Your task to perform on an android device: Go to calendar. Show me events next week Image 0: 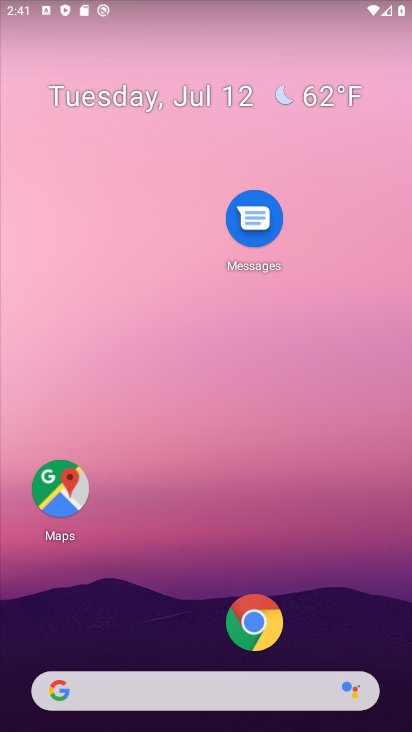
Step 0: click (404, 369)
Your task to perform on an android device: Go to calendar. Show me events next week Image 1: 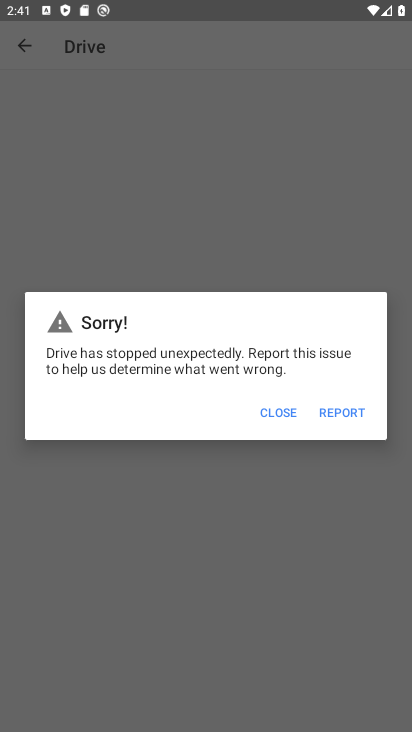
Step 1: press home button
Your task to perform on an android device: Go to calendar. Show me events next week Image 2: 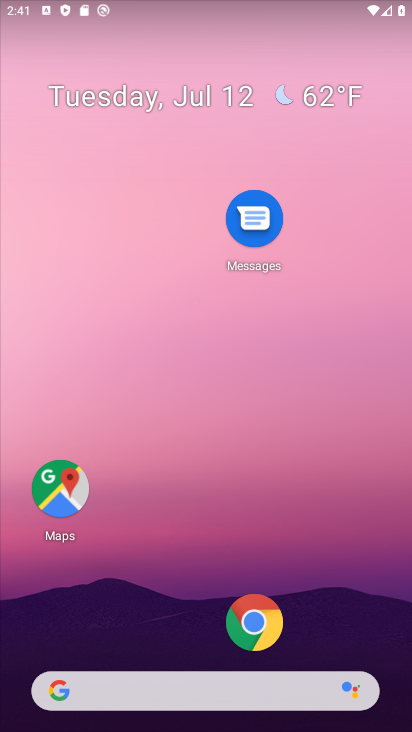
Step 2: drag from (202, 643) to (208, 66)
Your task to perform on an android device: Go to calendar. Show me events next week Image 3: 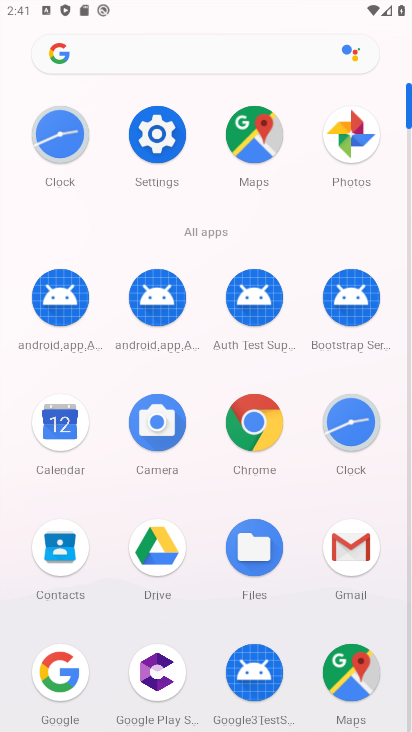
Step 3: click (60, 416)
Your task to perform on an android device: Go to calendar. Show me events next week Image 4: 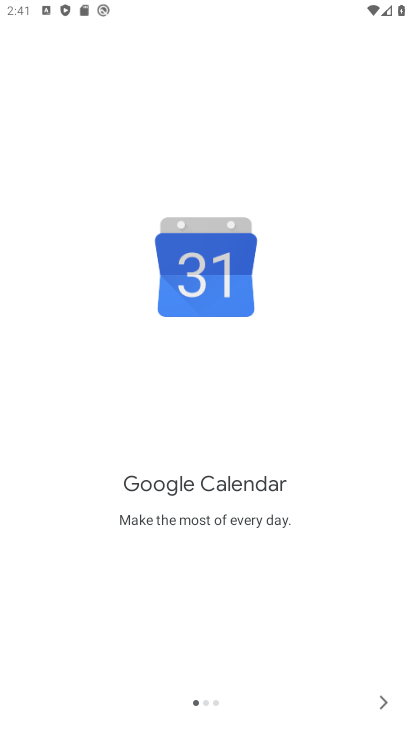
Step 4: click (377, 697)
Your task to perform on an android device: Go to calendar. Show me events next week Image 5: 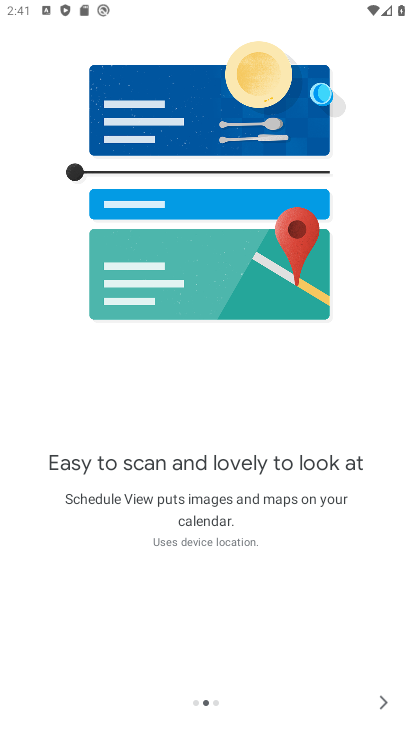
Step 5: click (377, 697)
Your task to perform on an android device: Go to calendar. Show me events next week Image 6: 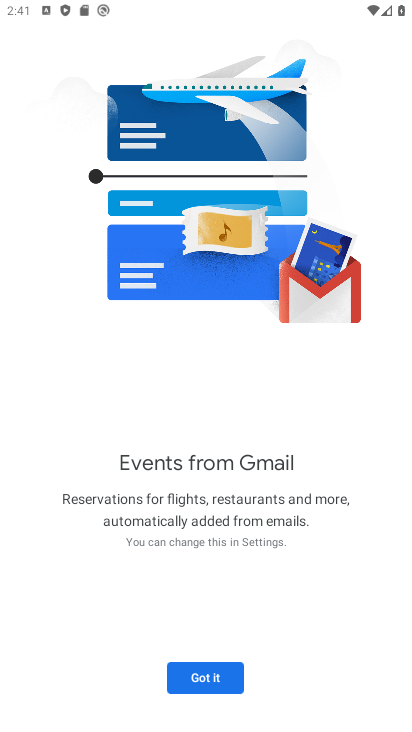
Step 6: click (206, 675)
Your task to perform on an android device: Go to calendar. Show me events next week Image 7: 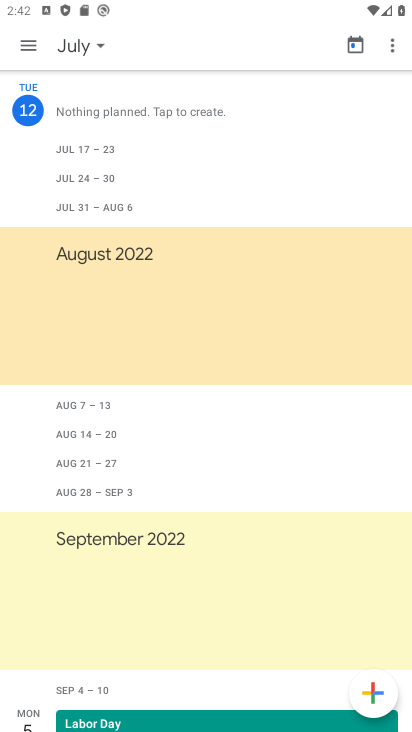
Step 7: click (29, 46)
Your task to perform on an android device: Go to calendar. Show me events next week Image 8: 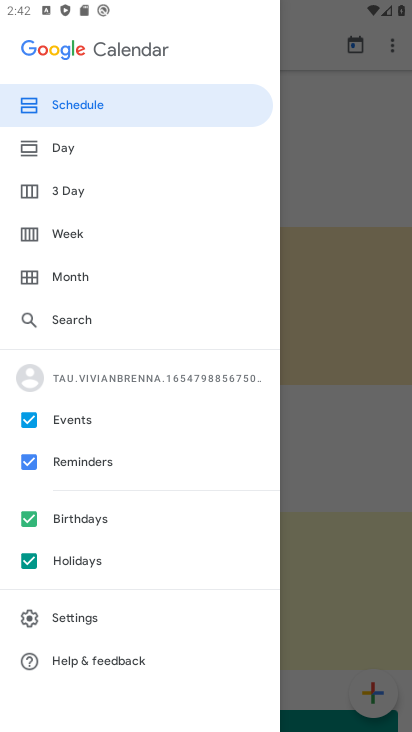
Step 8: click (73, 223)
Your task to perform on an android device: Go to calendar. Show me events next week Image 9: 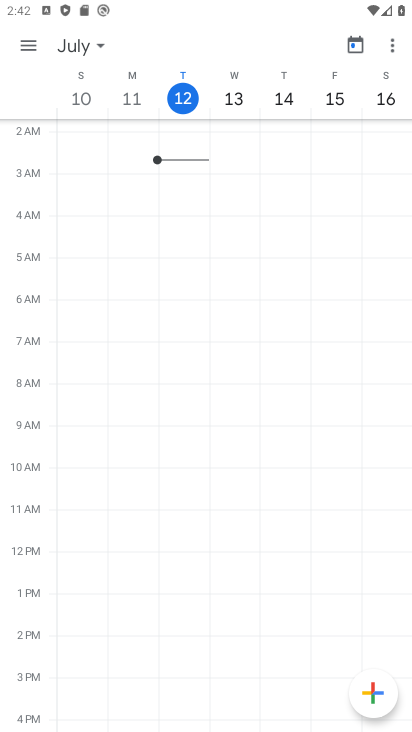
Step 9: drag from (385, 99) to (69, 74)
Your task to perform on an android device: Go to calendar. Show me events next week Image 10: 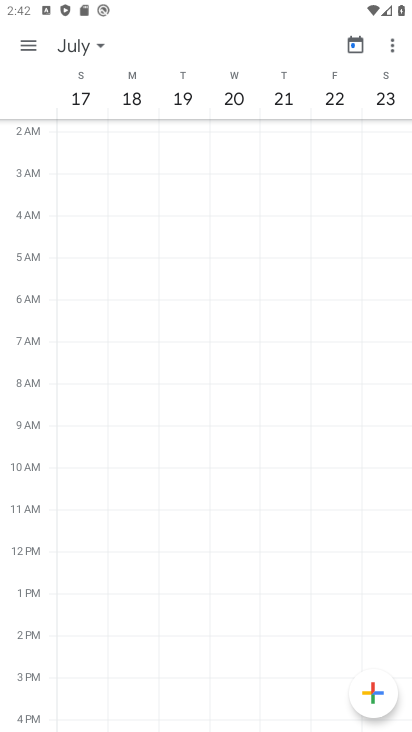
Step 10: click (75, 96)
Your task to perform on an android device: Go to calendar. Show me events next week Image 11: 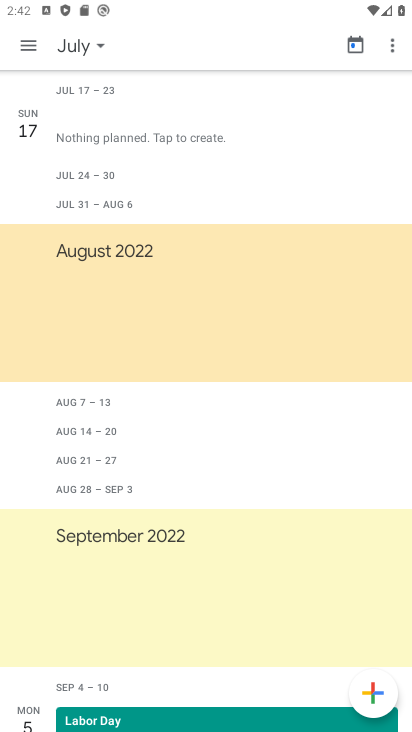
Step 11: task complete